Your task to perform on an android device: Go to Yahoo.com Image 0: 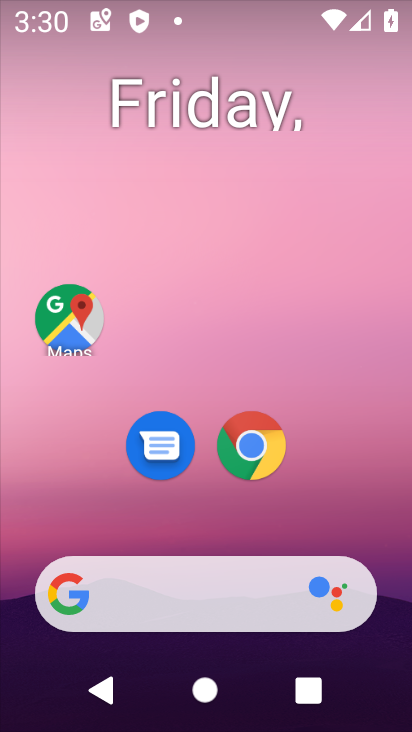
Step 0: click (247, 461)
Your task to perform on an android device: Go to Yahoo.com Image 1: 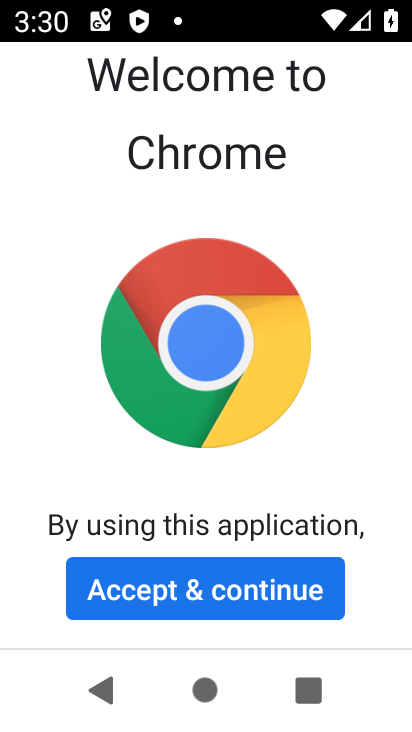
Step 1: click (196, 580)
Your task to perform on an android device: Go to Yahoo.com Image 2: 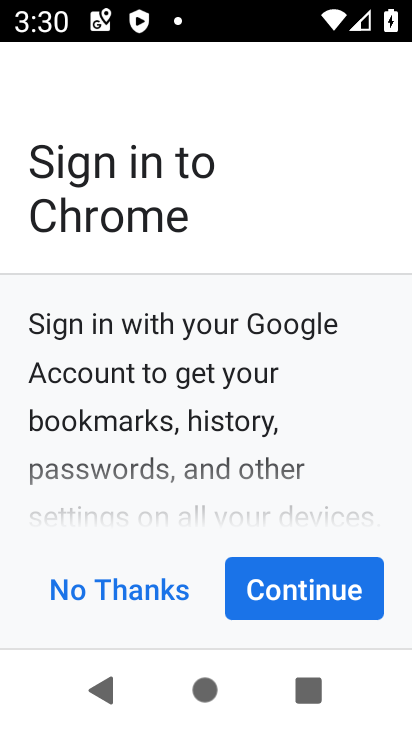
Step 2: click (346, 593)
Your task to perform on an android device: Go to Yahoo.com Image 3: 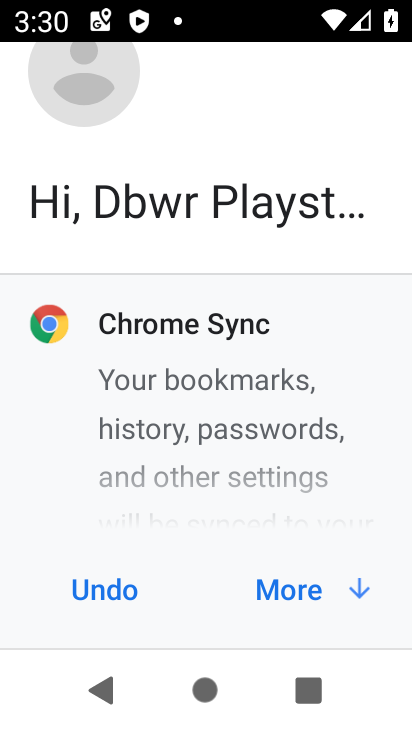
Step 3: click (304, 595)
Your task to perform on an android device: Go to Yahoo.com Image 4: 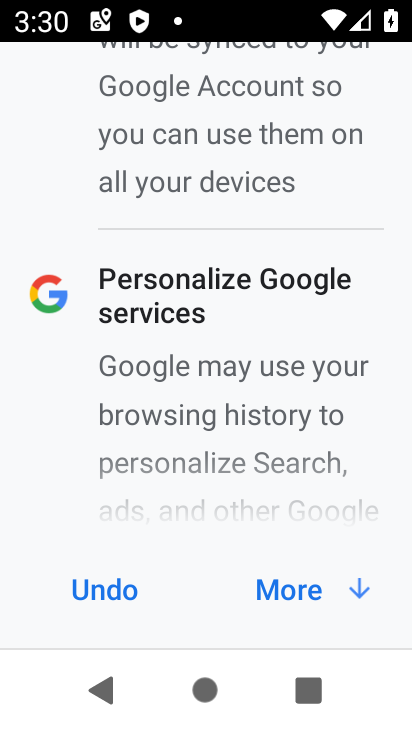
Step 4: click (305, 599)
Your task to perform on an android device: Go to Yahoo.com Image 5: 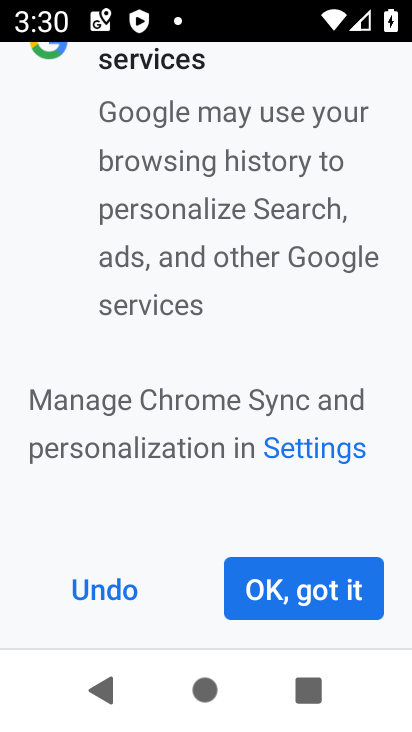
Step 5: click (286, 592)
Your task to perform on an android device: Go to Yahoo.com Image 6: 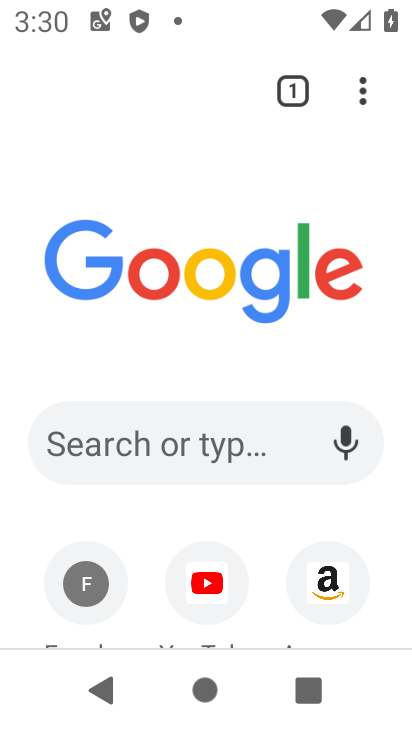
Step 6: drag from (307, 208) to (313, 117)
Your task to perform on an android device: Go to Yahoo.com Image 7: 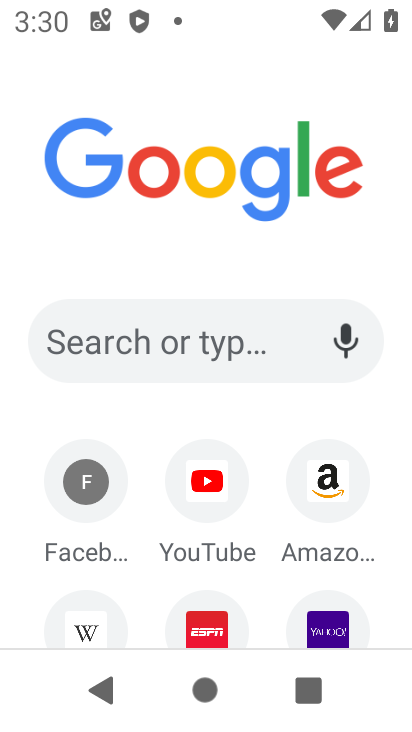
Step 7: click (312, 632)
Your task to perform on an android device: Go to Yahoo.com Image 8: 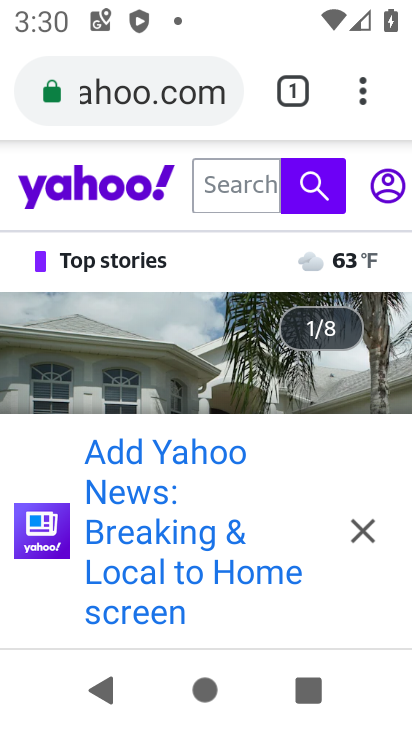
Step 8: task complete